Your task to perform on an android device: choose inbox layout in the gmail app Image 0: 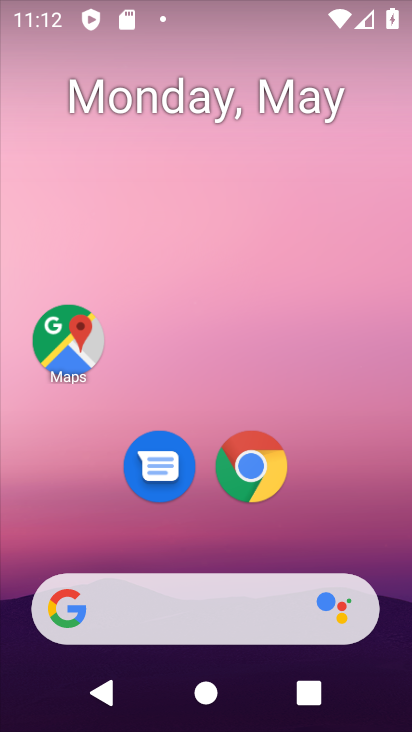
Step 0: drag from (103, 540) to (212, 112)
Your task to perform on an android device: choose inbox layout in the gmail app Image 1: 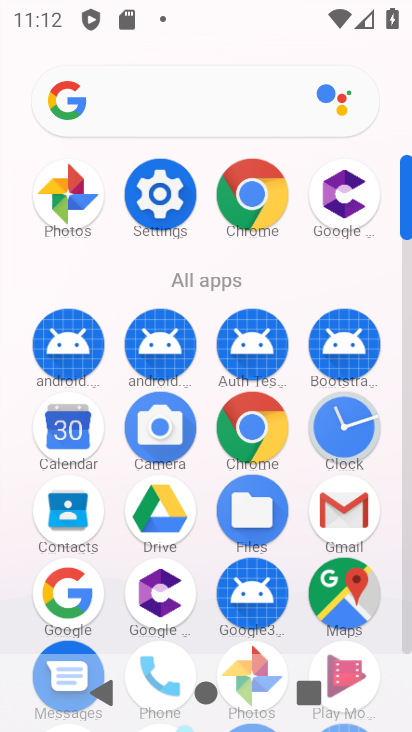
Step 1: click (348, 522)
Your task to perform on an android device: choose inbox layout in the gmail app Image 2: 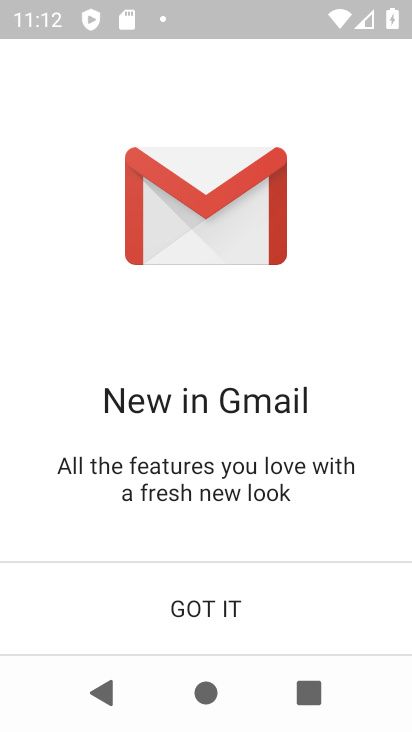
Step 2: click (247, 612)
Your task to perform on an android device: choose inbox layout in the gmail app Image 3: 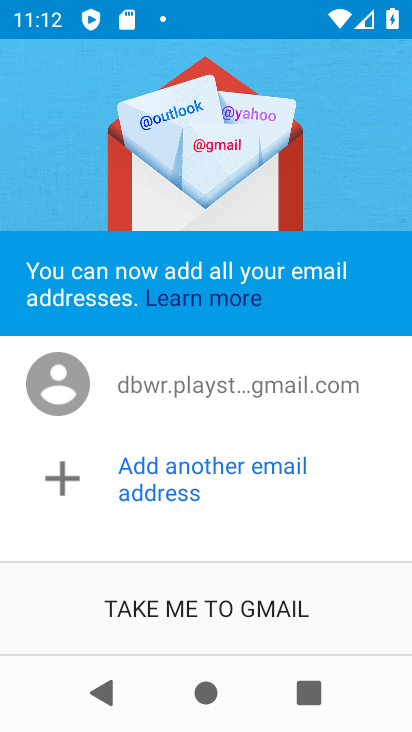
Step 3: click (248, 612)
Your task to perform on an android device: choose inbox layout in the gmail app Image 4: 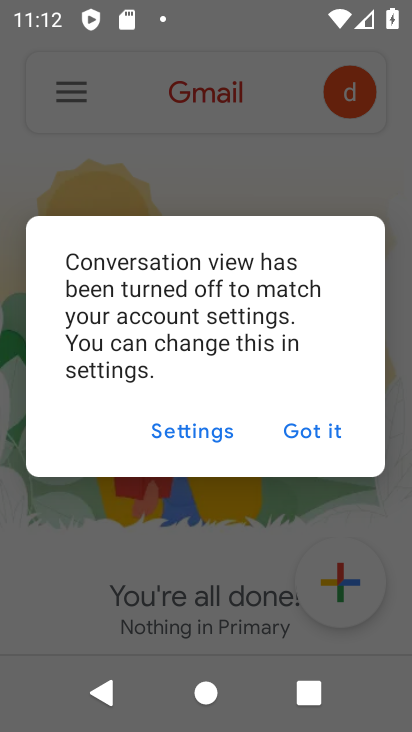
Step 4: click (331, 439)
Your task to perform on an android device: choose inbox layout in the gmail app Image 5: 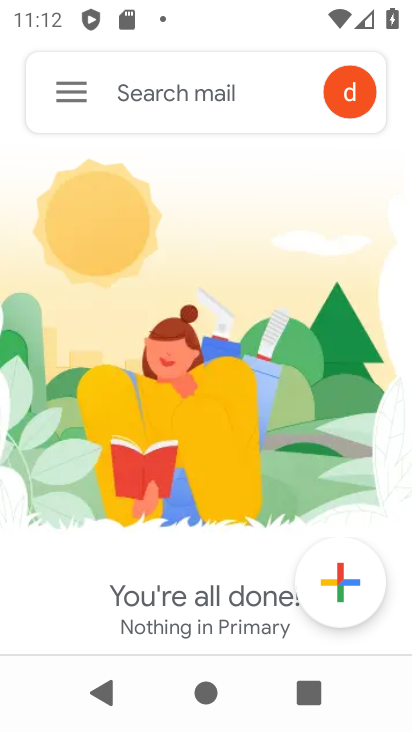
Step 5: click (60, 120)
Your task to perform on an android device: choose inbox layout in the gmail app Image 6: 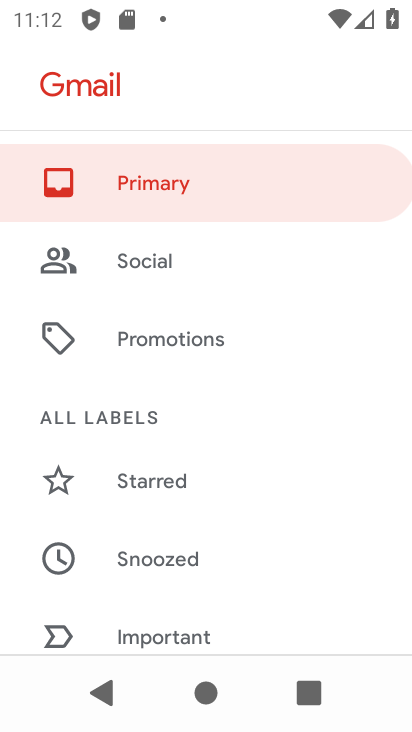
Step 6: drag from (132, 479) to (276, 48)
Your task to perform on an android device: choose inbox layout in the gmail app Image 7: 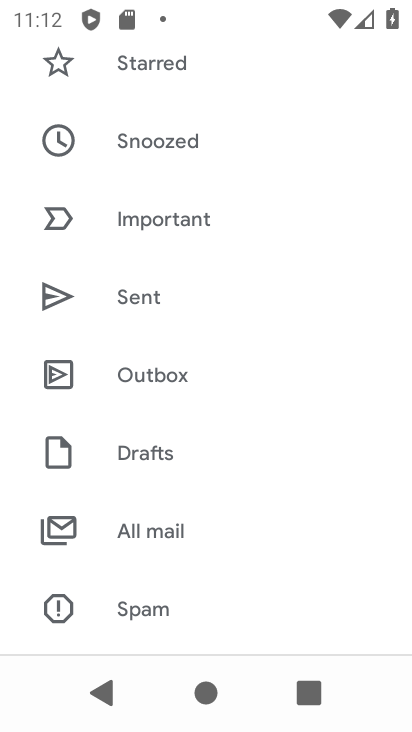
Step 7: drag from (176, 595) to (312, 128)
Your task to perform on an android device: choose inbox layout in the gmail app Image 8: 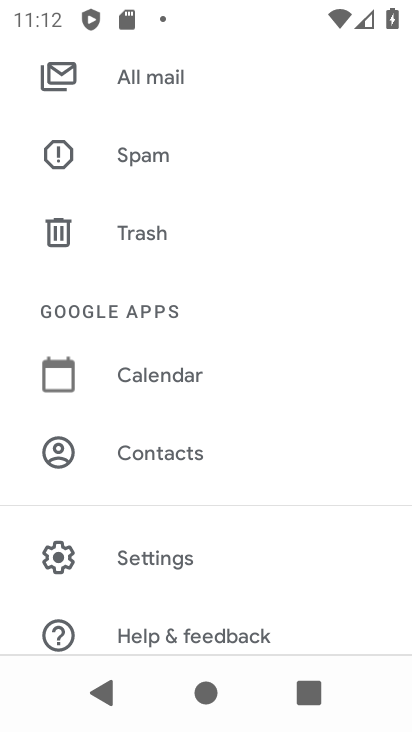
Step 8: click (161, 580)
Your task to perform on an android device: choose inbox layout in the gmail app Image 9: 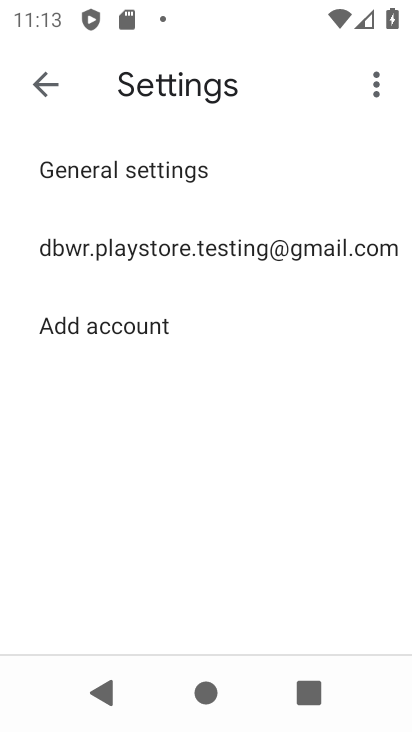
Step 9: click (285, 261)
Your task to perform on an android device: choose inbox layout in the gmail app Image 10: 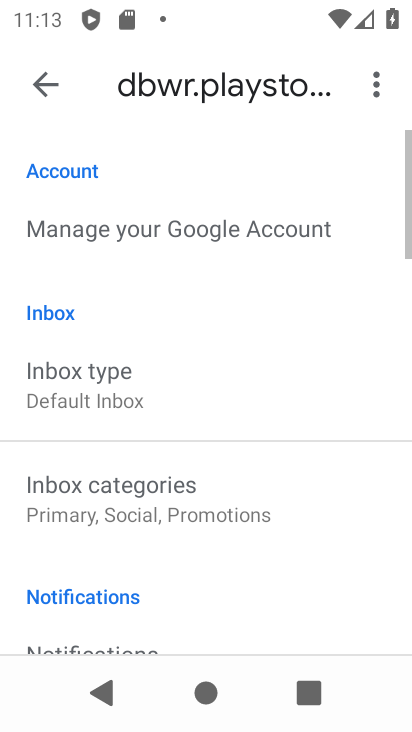
Step 10: click (168, 400)
Your task to perform on an android device: choose inbox layout in the gmail app Image 11: 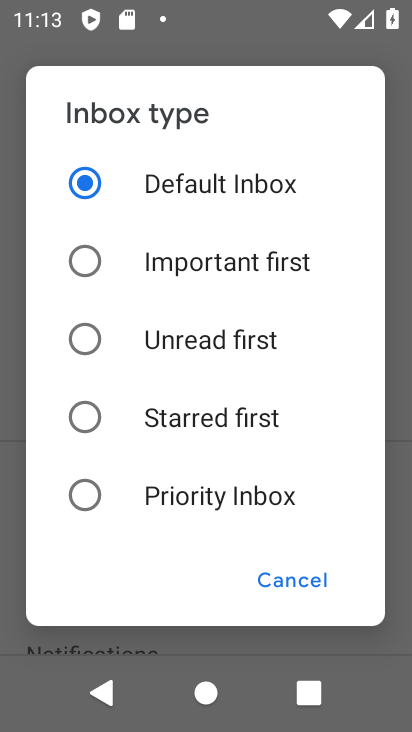
Step 11: click (232, 505)
Your task to perform on an android device: choose inbox layout in the gmail app Image 12: 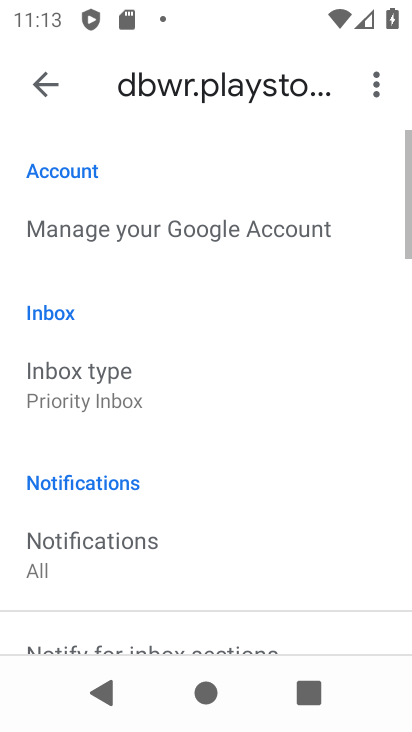
Step 12: task complete